Your task to perform on an android device: check the backup settings in the google photos Image 0: 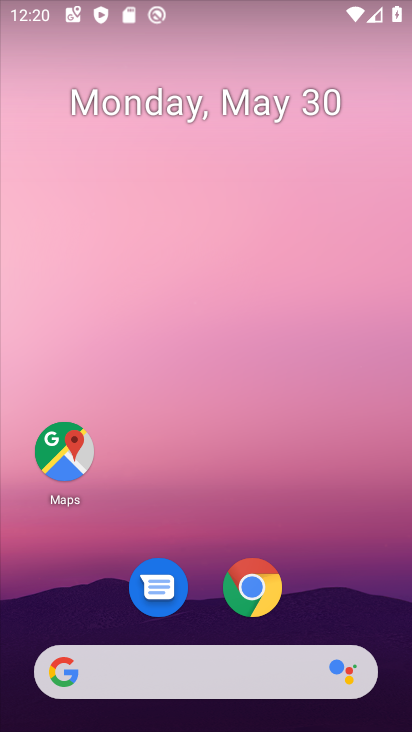
Step 0: drag from (135, 731) to (123, 55)
Your task to perform on an android device: check the backup settings in the google photos Image 1: 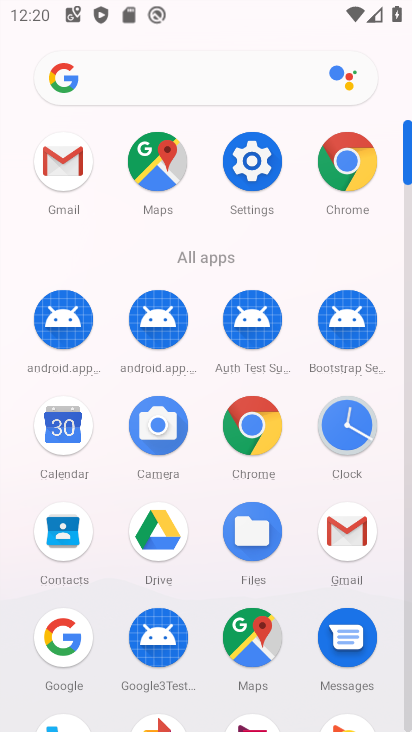
Step 1: drag from (106, 628) to (131, 215)
Your task to perform on an android device: check the backup settings in the google photos Image 2: 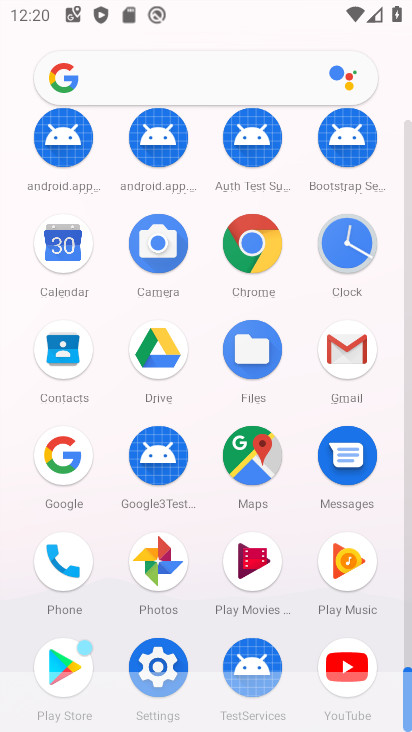
Step 2: click (155, 578)
Your task to perform on an android device: check the backup settings in the google photos Image 3: 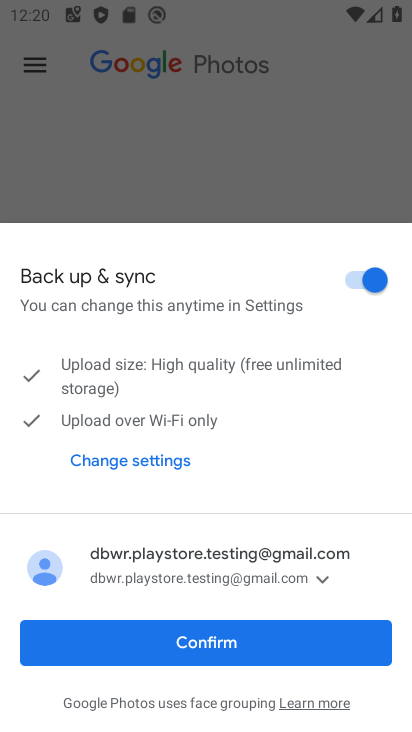
Step 3: click (198, 661)
Your task to perform on an android device: check the backup settings in the google photos Image 4: 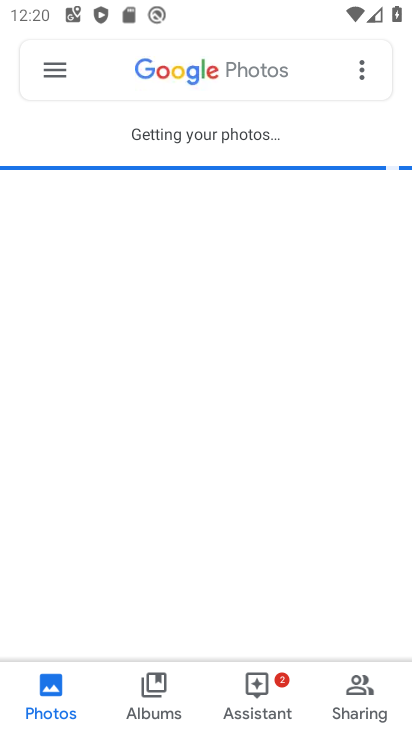
Step 4: click (61, 76)
Your task to perform on an android device: check the backup settings in the google photos Image 5: 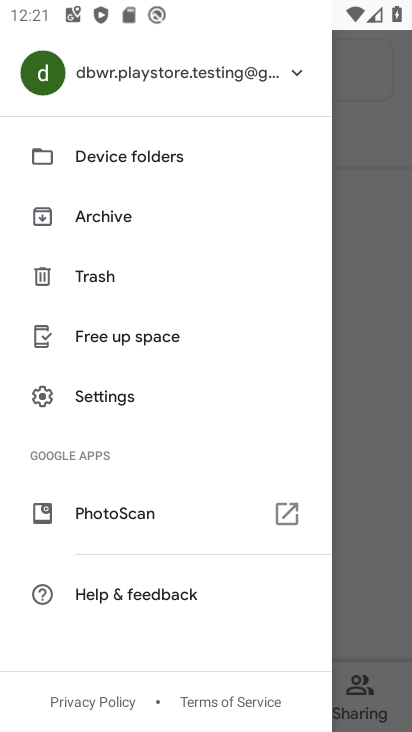
Step 5: click (104, 400)
Your task to perform on an android device: check the backup settings in the google photos Image 6: 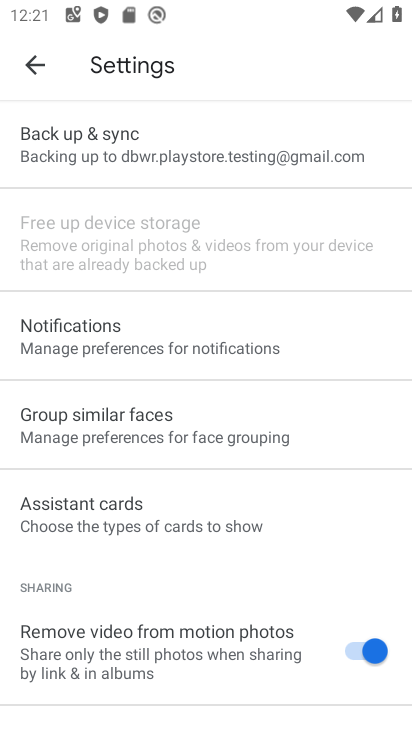
Step 6: click (229, 160)
Your task to perform on an android device: check the backup settings in the google photos Image 7: 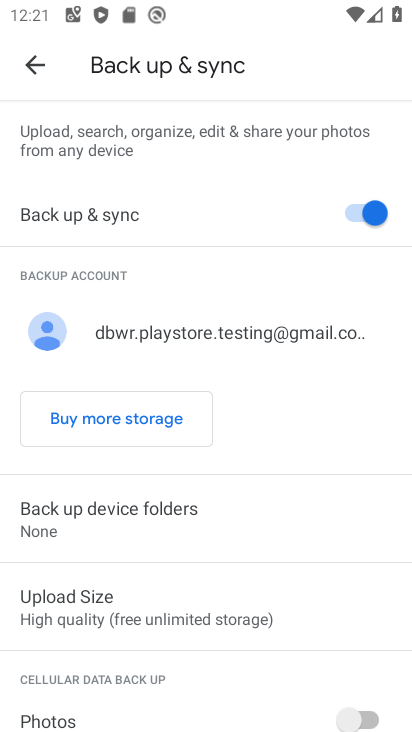
Step 7: task complete